Your task to perform on an android device: check out phone information Image 0: 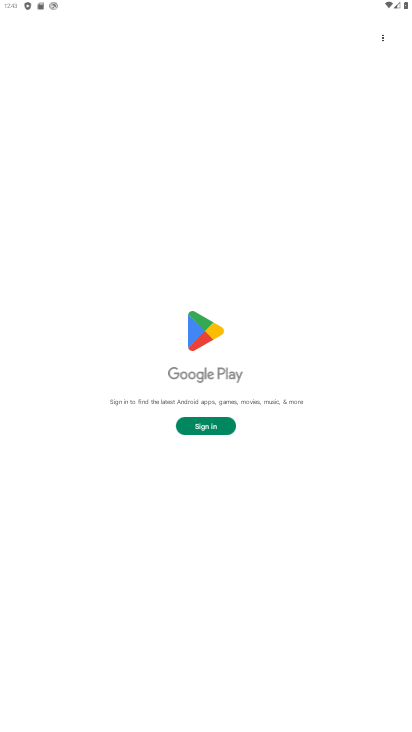
Step 0: press back button
Your task to perform on an android device: check out phone information Image 1: 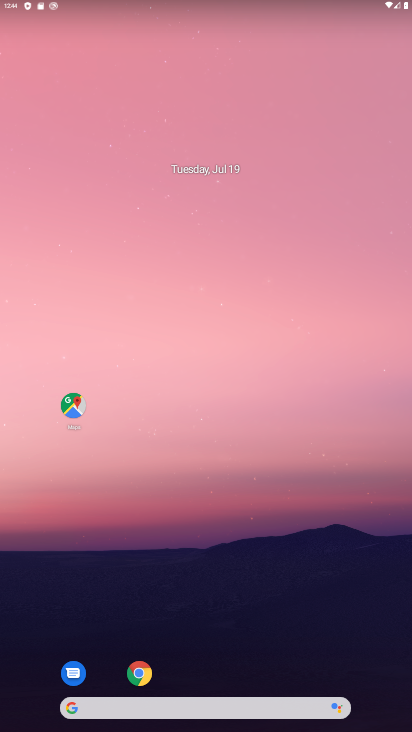
Step 1: drag from (201, 692) to (95, 61)
Your task to perform on an android device: check out phone information Image 2: 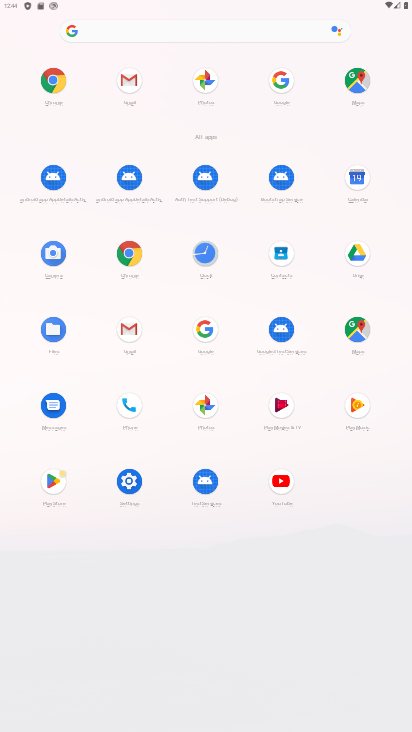
Step 2: click (130, 471)
Your task to perform on an android device: check out phone information Image 3: 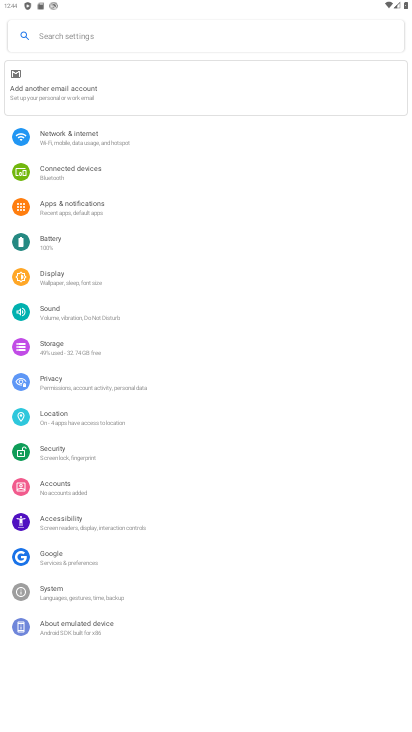
Step 3: click (71, 632)
Your task to perform on an android device: check out phone information Image 4: 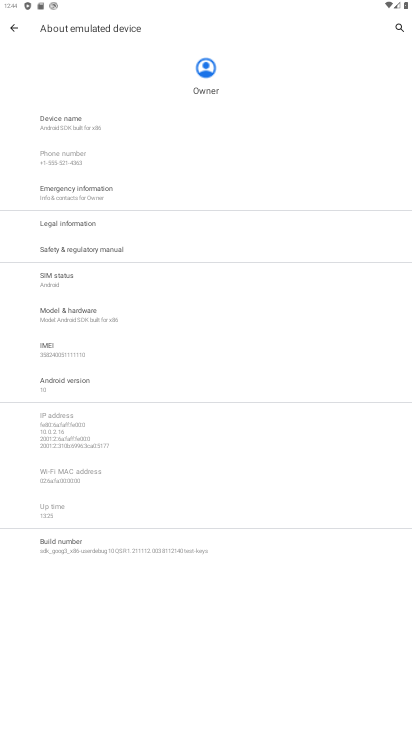
Step 4: task complete